Your task to perform on an android device: Open Wikipedia Image 0: 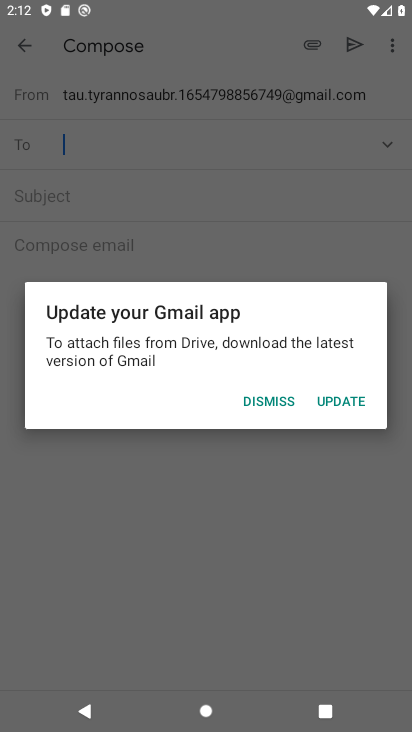
Step 0: click (270, 398)
Your task to perform on an android device: Open Wikipedia Image 1: 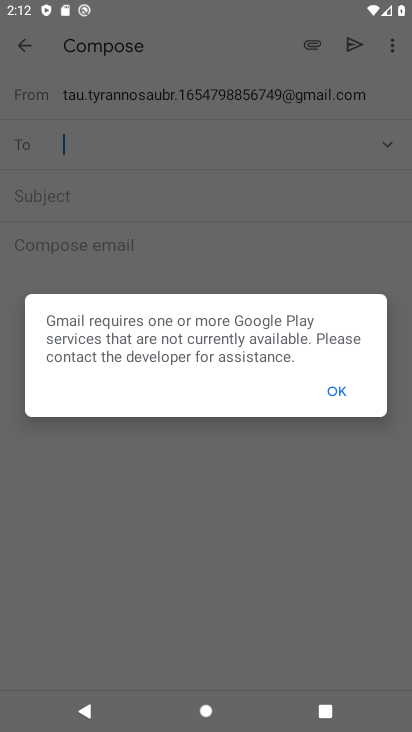
Step 1: click (334, 397)
Your task to perform on an android device: Open Wikipedia Image 2: 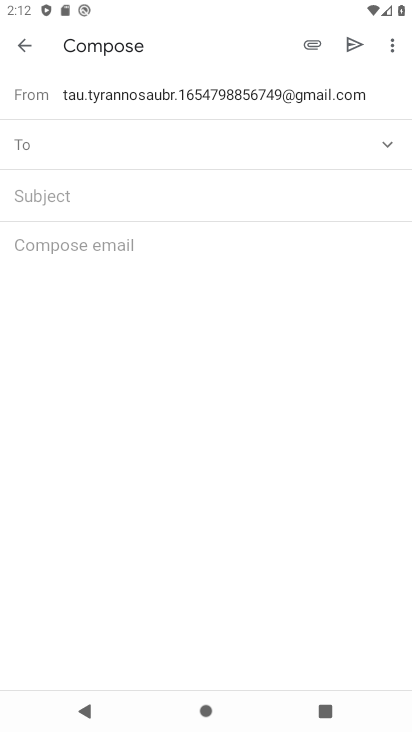
Step 2: click (16, 40)
Your task to perform on an android device: Open Wikipedia Image 3: 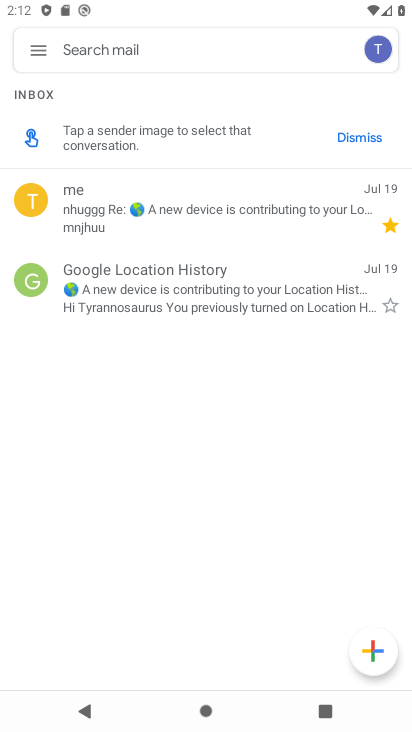
Step 3: press back button
Your task to perform on an android device: Open Wikipedia Image 4: 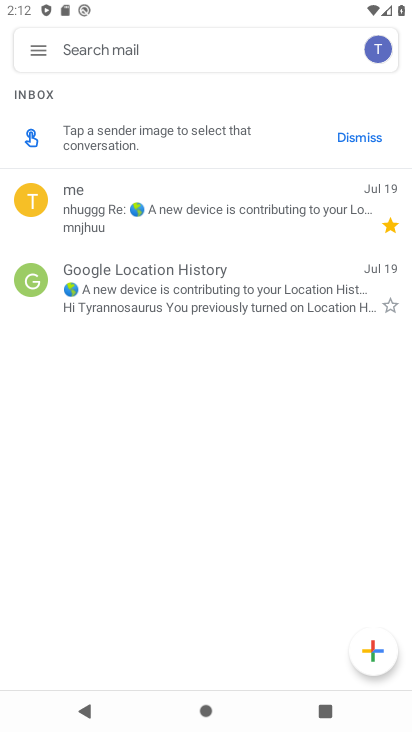
Step 4: press back button
Your task to perform on an android device: Open Wikipedia Image 5: 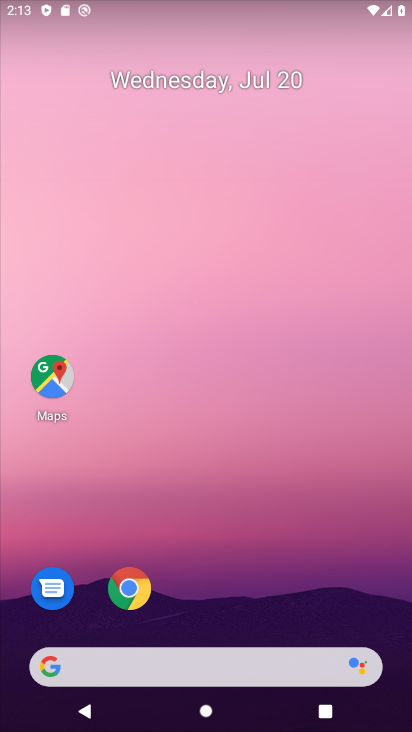
Step 5: drag from (314, 471) to (305, 257)
Your task to perform on an android device: Open Wikipedia Image 6: 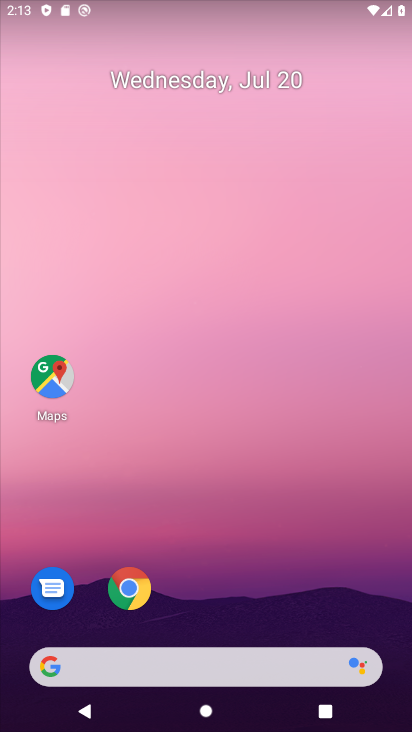
Step 6: drag from (265, 608) to (264, 305)
Your task to perform on an android device: Open Wikipedia Image 7: 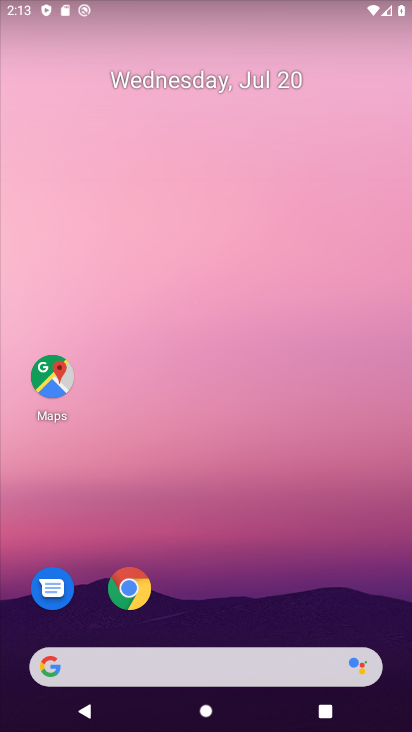
Step 7: drag from (252, 447) to (234, 134)
Your task to perform on an android device: Open Wikipedia Image 8: 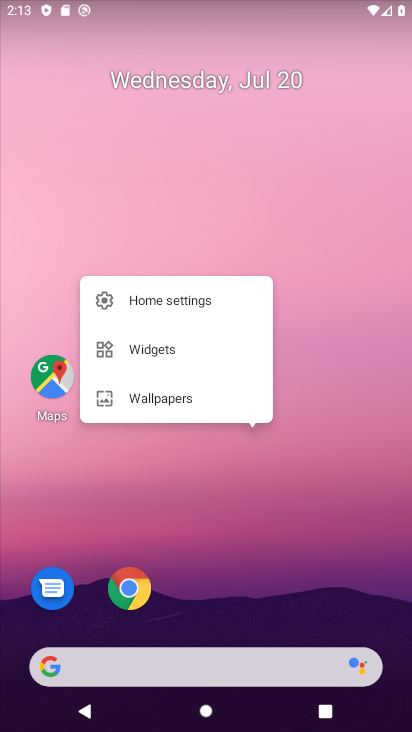
Step 8: drag from (259, 603) to (203, 182)
Your task to perform on an android device: Open Wikipedia Image 9: 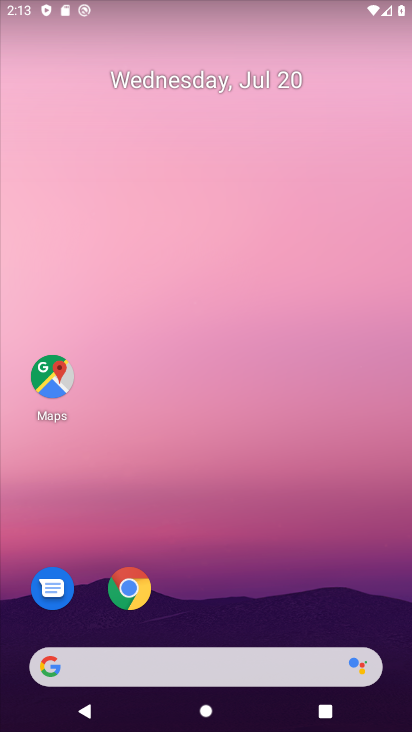
Step 9: drag from (288, 633) to (210, 130)
Your task to perform on an android device: Open Wikipedia Image 10: 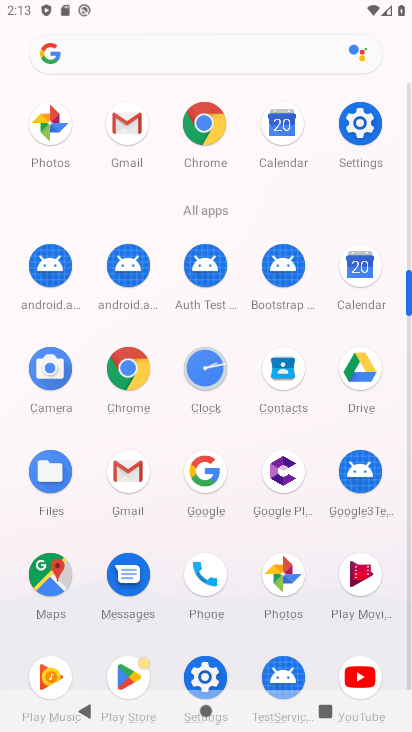
Step 10: click (210, 121)
Your task to perform on an android device: Open Wikipedia Image 11: 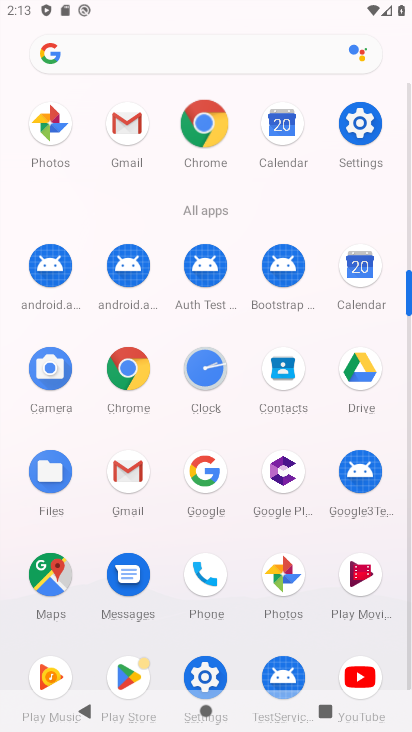
Step 11: click (207, 121)
Your task to perform on an android device: Open Wikipedia Image 12: 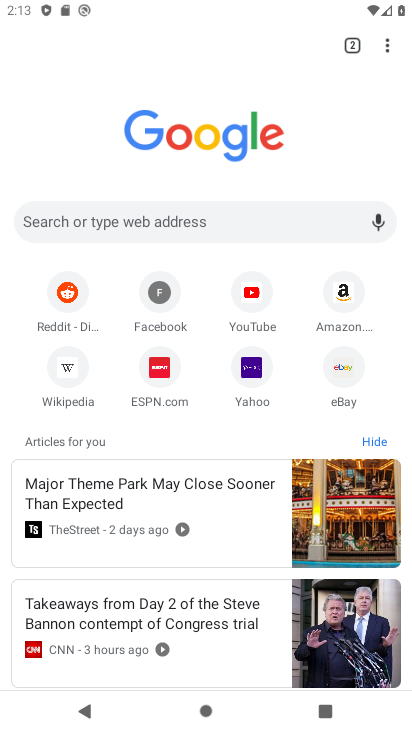
Step 12: click (50, 372)
Your task to perform on an android device: Open Wikipedia Image 13: 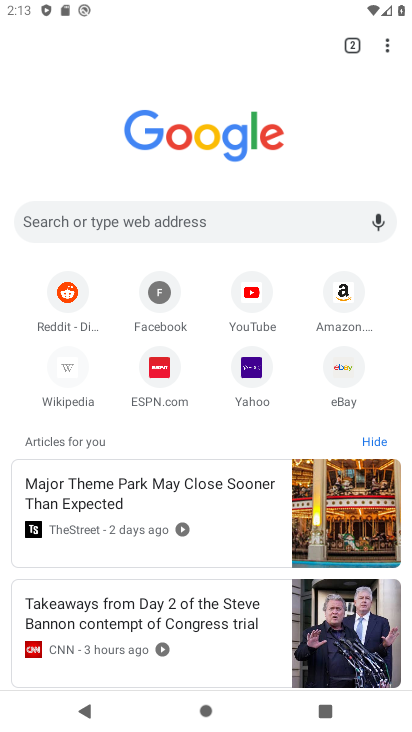
Step 13: click (59, 368)
Your task to perform on an android device: Open Wikipedia Image 14: 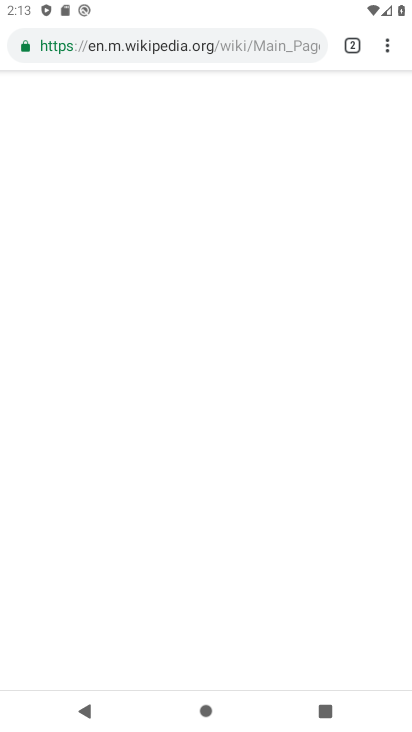
Step 14: click (65, 366)
Your task to perform on an android device: Open Wikipedia Image 15: 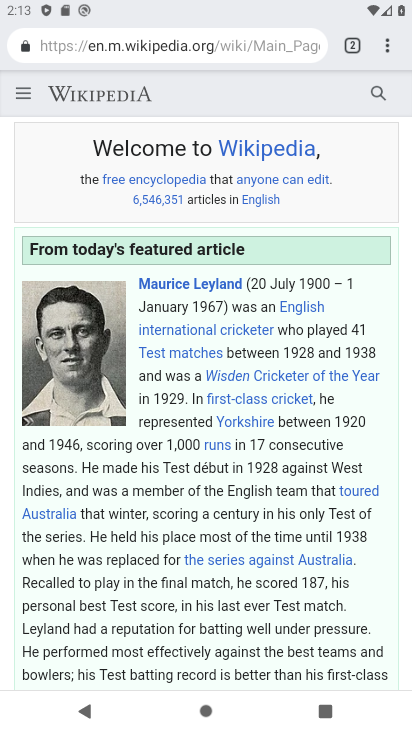
Step 15: task complete